Your task to perform on an android device: delete location history Image 0: 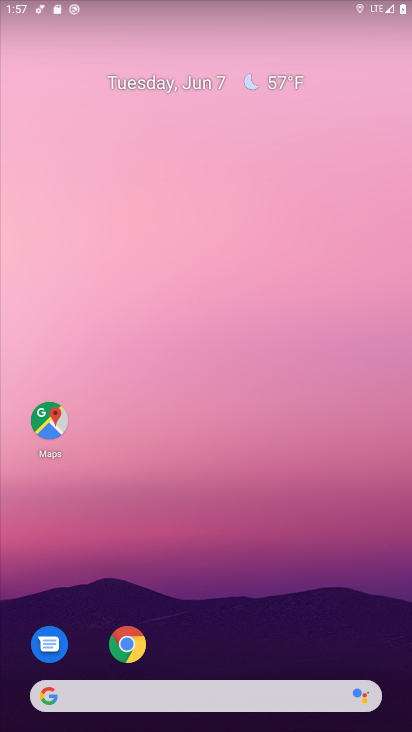
Step 0: click (47, 423)
Your task to perform on an android device: delete location history Image 1: 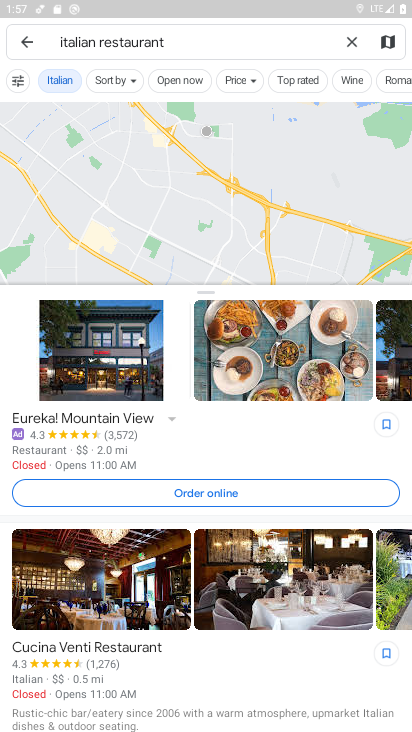
Step 1: click (18, 43)
Your task to perform on an android device: delete location history Image 2: 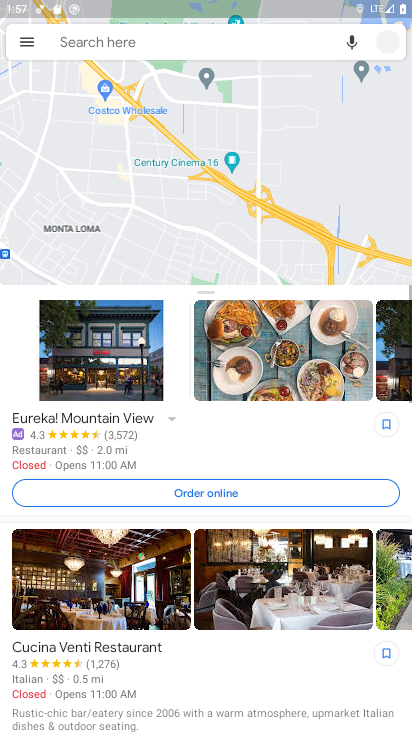
Step 2: click (18, 43)
Your task to perform on an android device: delete location history Image 3: 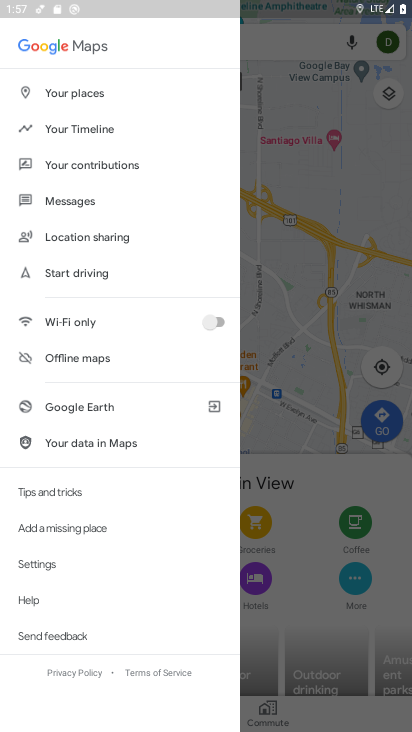
Step 3: click (19, 41)
Your task to perform on an android device: delete location history Image 4: 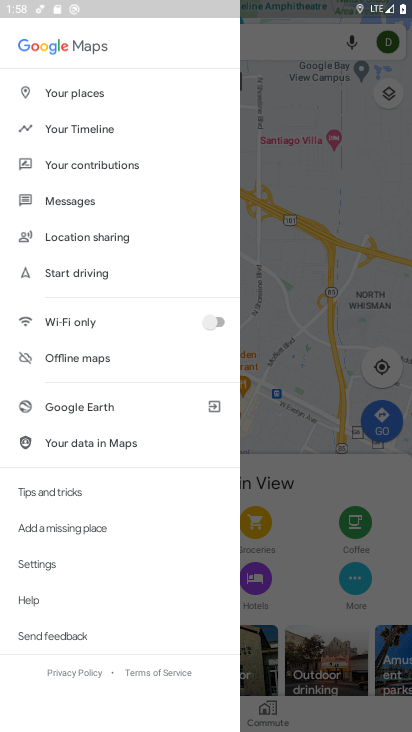
Step 4: click (75, 131)
Your task to perform on an android device: delete location history Image 5: 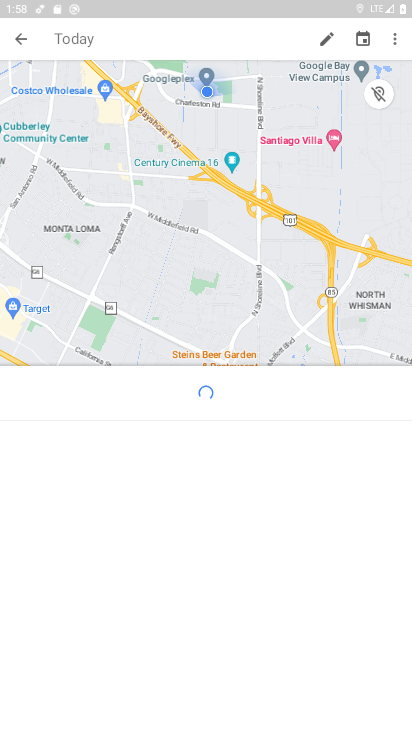
Step 5: click (387, 34)
Your task to perform on an android device: delete location history Image 6: 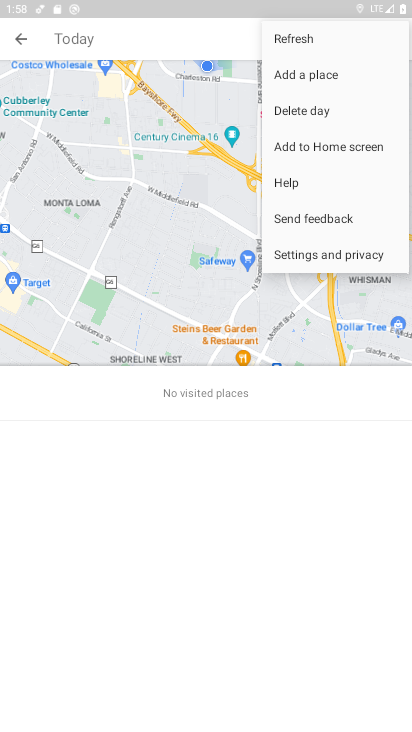
Step 6: click (294, 244)
Your task to perform on an android device: delete location history Image 7: 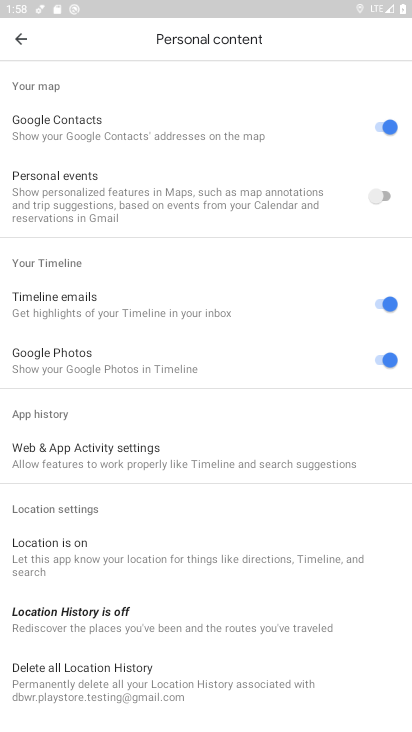
Step 7: drag from (92, 635) to (88, 447)
Your task to perform on an android device: delete location history Image 8: 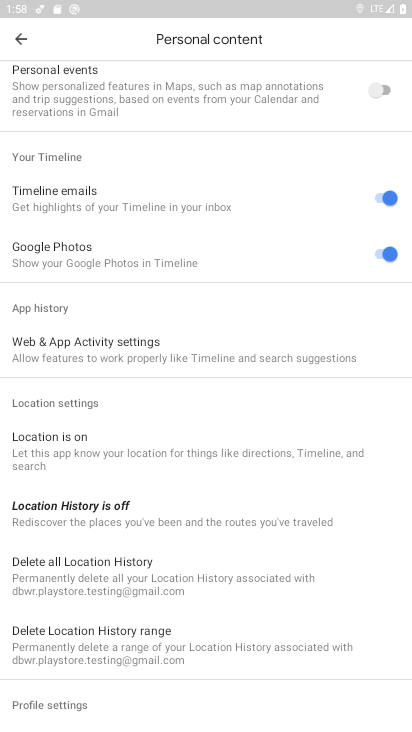
Step 8: click (149, 585)
Your task to perform on an android device: delete location history Image 9: 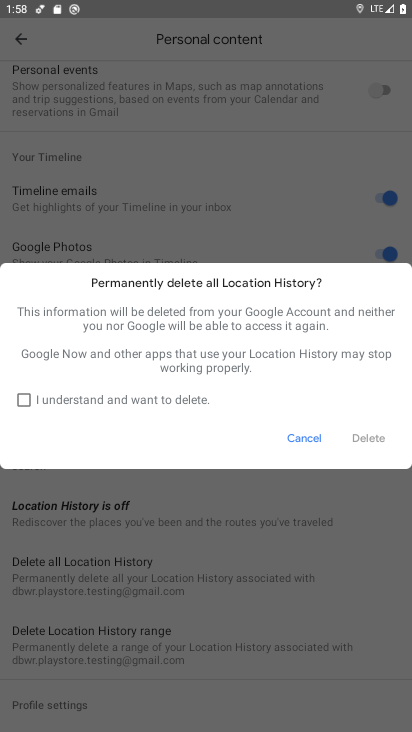
Step 9: click (125, 408)
Your task to perform on an android device: delete location history Image 10: 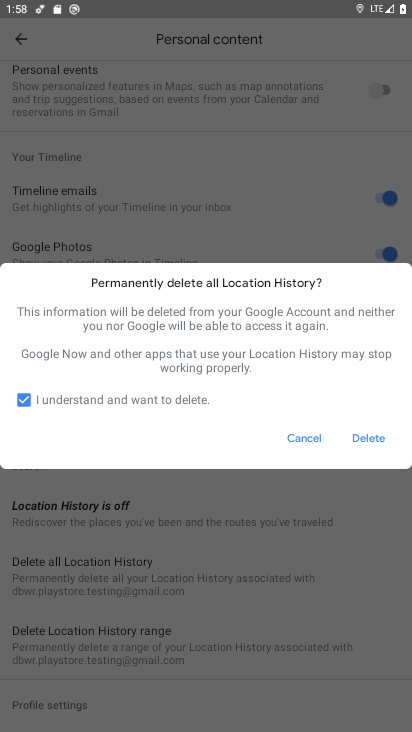
Step 10: click (380, 436)
Your task to perform on an android device: delete location history Image 11: 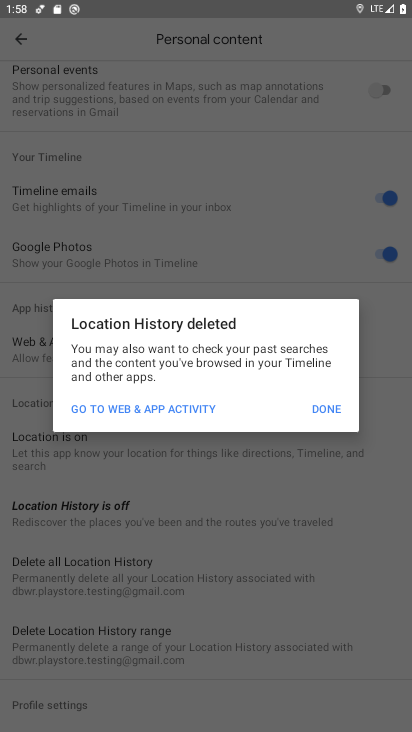
Step 11: task complete